Your task to perform on an android device: remove spam from my inbox in the gmail app Image 0: 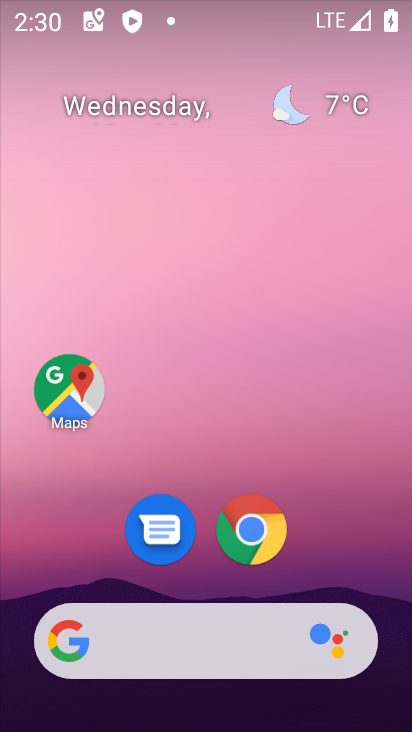
Step 0: drag from (383, 525) to (368, 36)
Your task to perform on an android device: remove spam from my inbox in the gmail app Image 1: 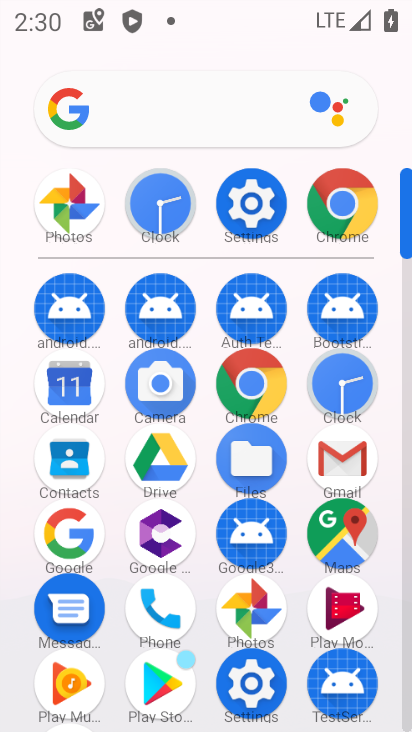
Step 1: click (347, 453)
Your task to perform on an android device: remove spam from my inbox in the gmail app Image 2: 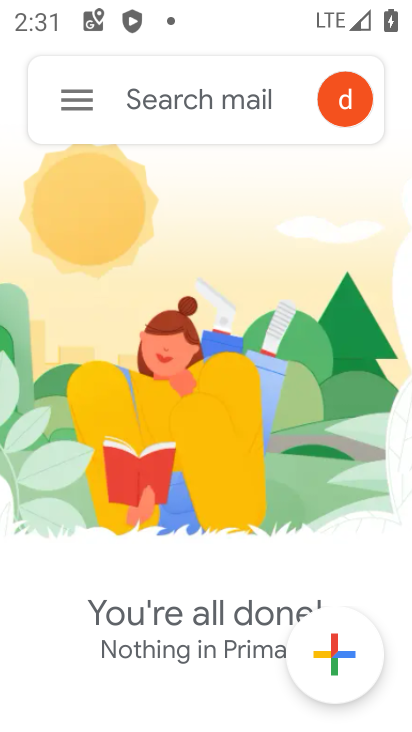
Step 2: click (98, 85)
Your task to perform on an android device: remove spam from my inbox in the gmail app Image 3: 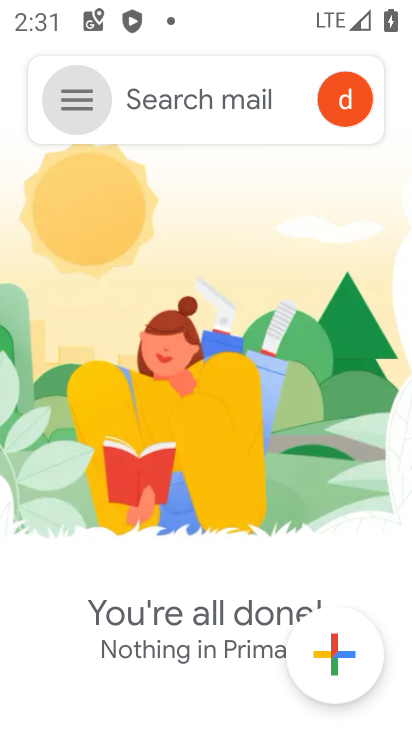
Step 3: click (85, 98)
Your task to perform on an android device: remove spam from my inbox in the gmail app Image 4: 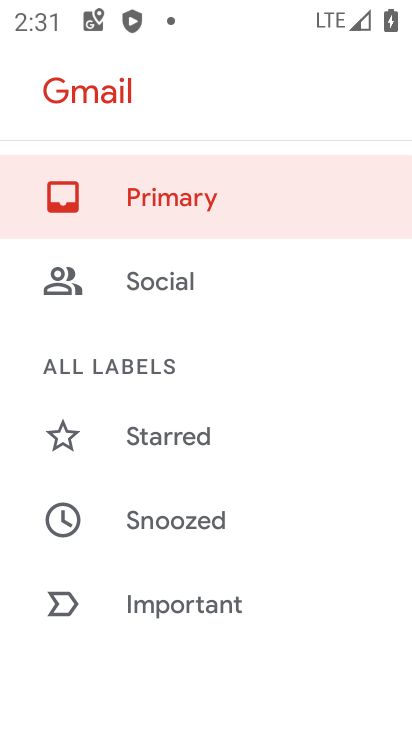
Step 4: drag from (214, 526) to (218, 204)
Your task to perform on an android device: remove spam from my inbox in the gmail app Image 5: 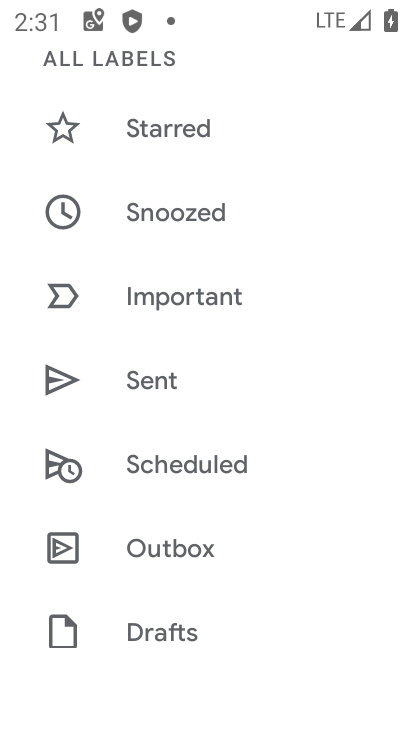
Step 5: drag from (239, 571) to (227, 152)
Your task to perform on an android device: remove spam from my inbox in the gmail app Image 6: 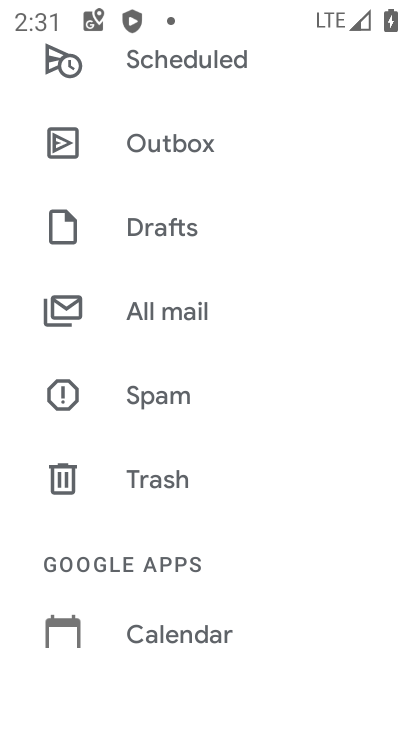
Step 6: click (166, 415)
Your task to perform on an android device: remove spam from my inbox in the gmail app Image 7: 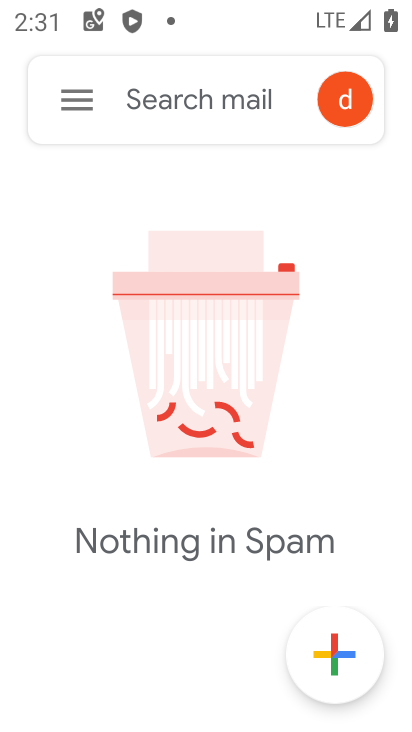
Step 7: task complete